Your task to perform on an android device: empty trash in google photos Image 0: 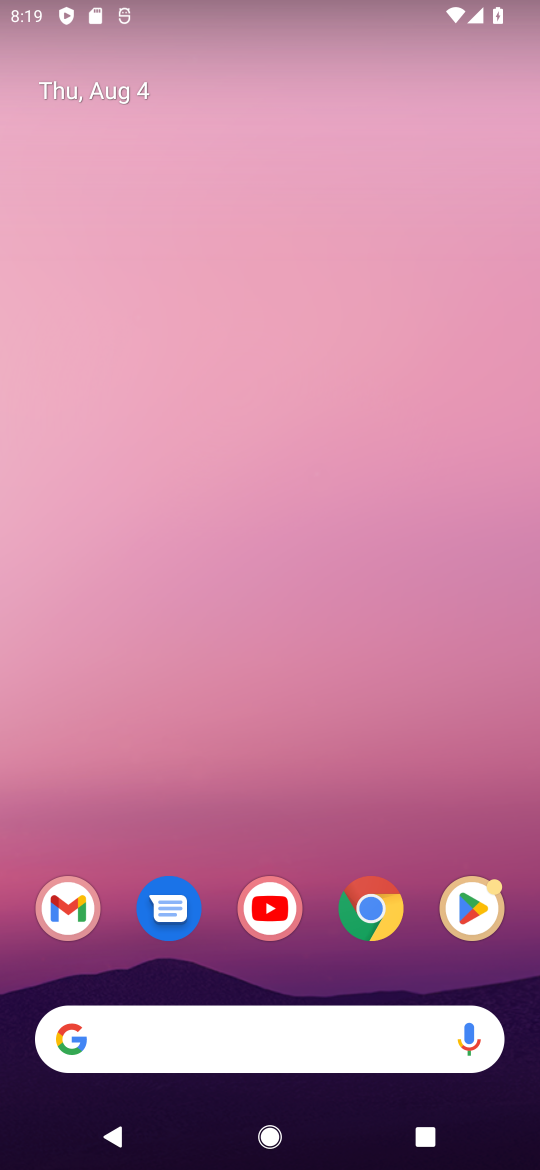
Step 0: drag from (334, 942) to (312, 330)
Your task to perform on an android device: empty trash in google photos Image 1: 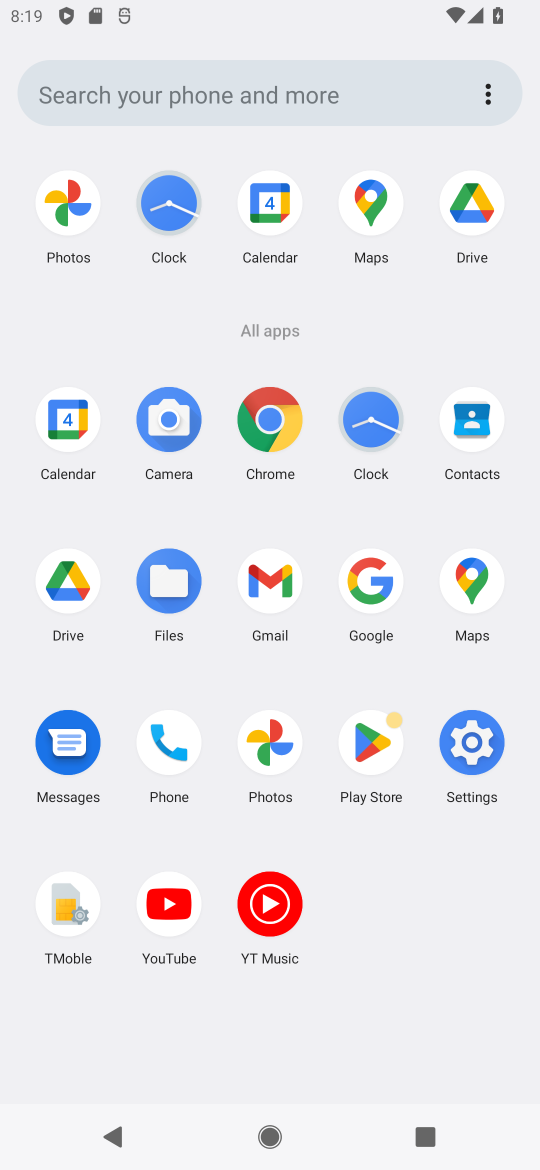
Step 1: click (267, 735)
Your task to perform on an android device: empty trash in google photos Image 2: 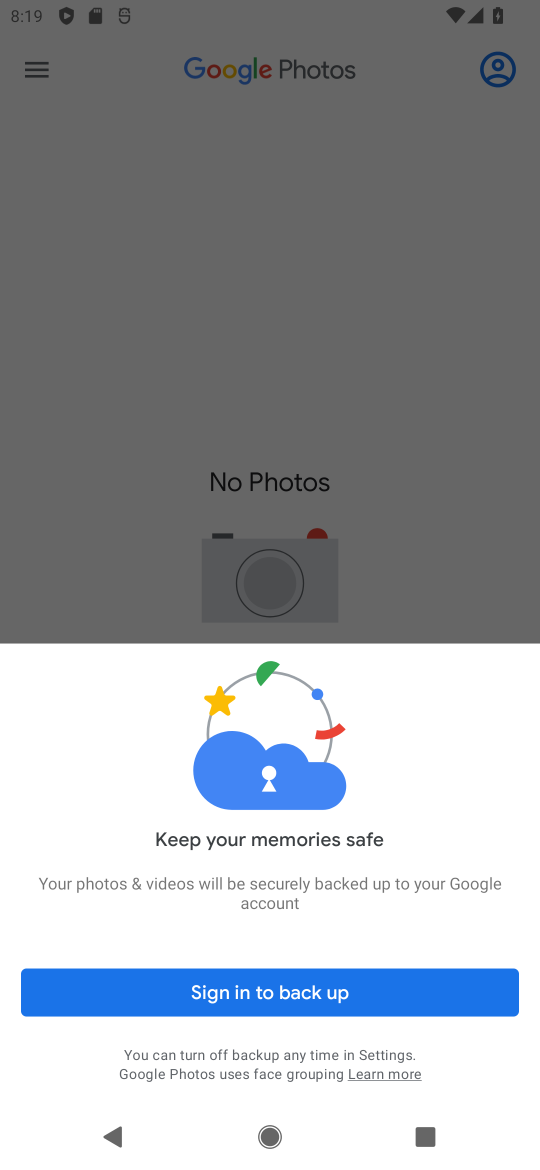
Step 2: click (307, 985)
Your task to perform on an android device: empty trash in google photos Image 3: 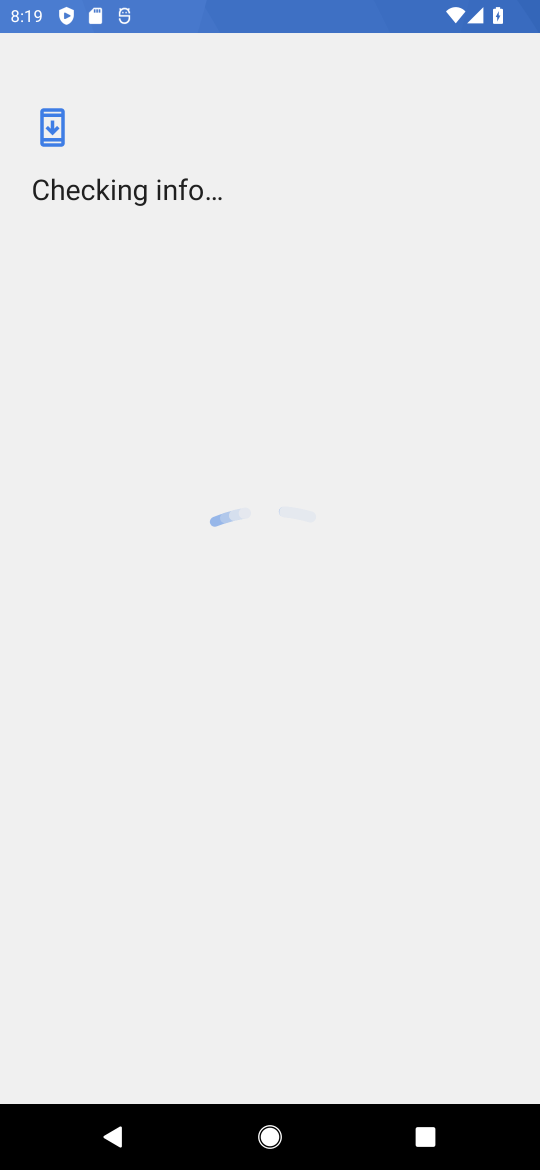
Step 3: task complete